Your task to perform on an android device: turn on the 12-hour format for clock Image 0: 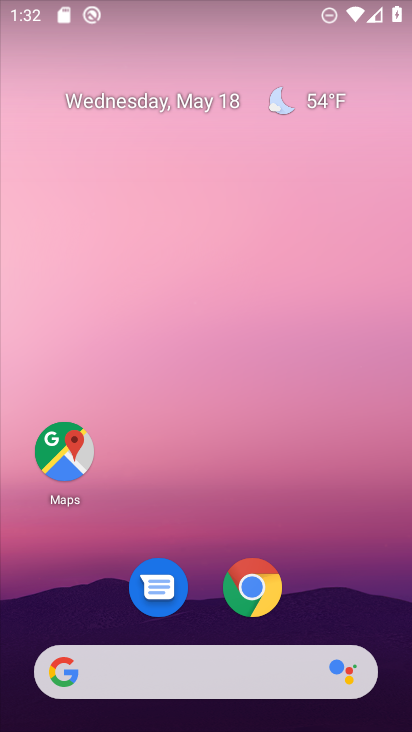
Step 0: drag from (89, 618) to (164, 209)
Your task to perform on an android device: turn on the 12-hour format for clock Image 1: 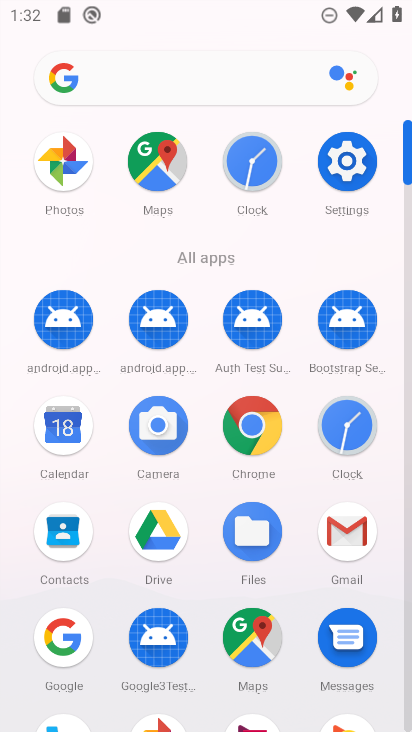
Step 1: click (354, 419)
Your task to perform on an android device: turn on the 12-hour format for clock Image 2: 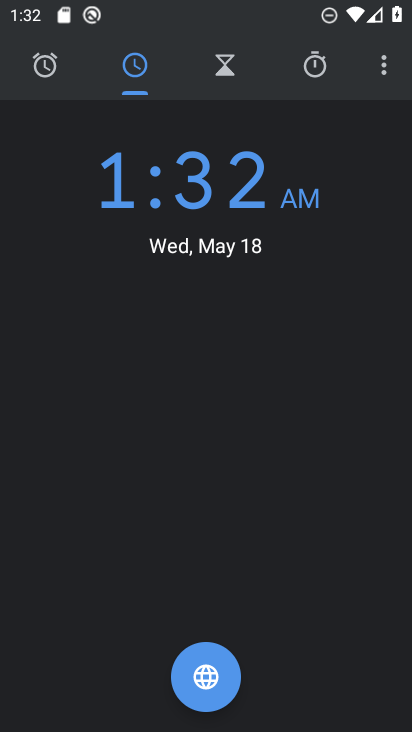
Step 2: click (384, 77)
Your task to perform on an android device: turn on the 12-hour format for clock Image 3: 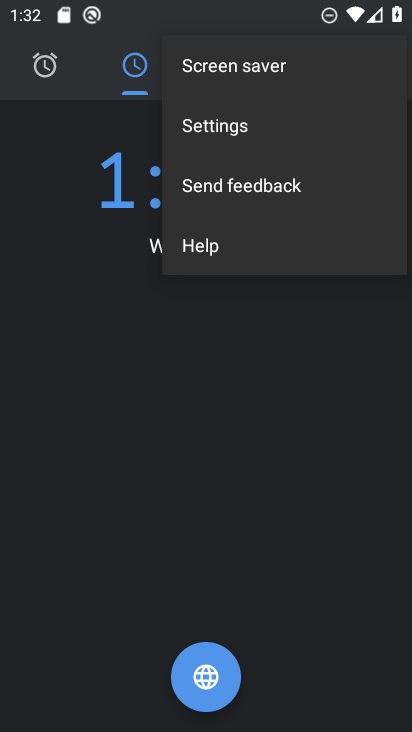
Step 3: click (351, 119)
Your task to perform on an android device: turn on the 12-hour format for clock Image 4: 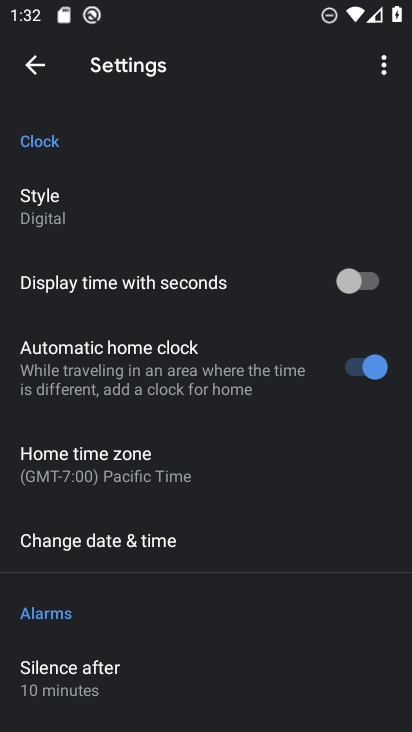
Step 4: click (224, 534)
Your task to perform on an android device: turn on the 12-hour format for clock Image 5: 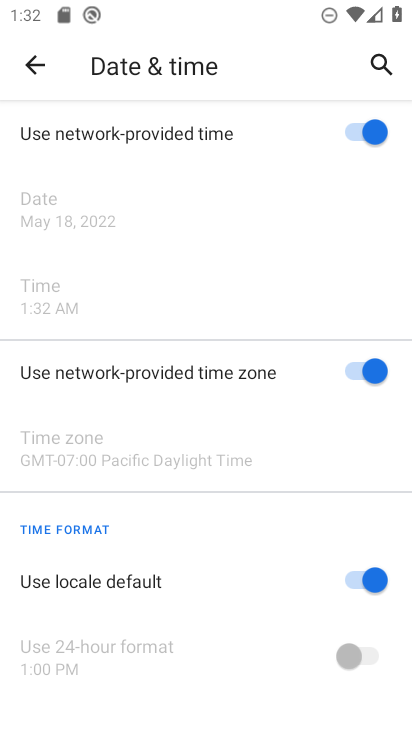
Step 5: task complete